Your task to perform on an android device: Open notification settings Image 0: 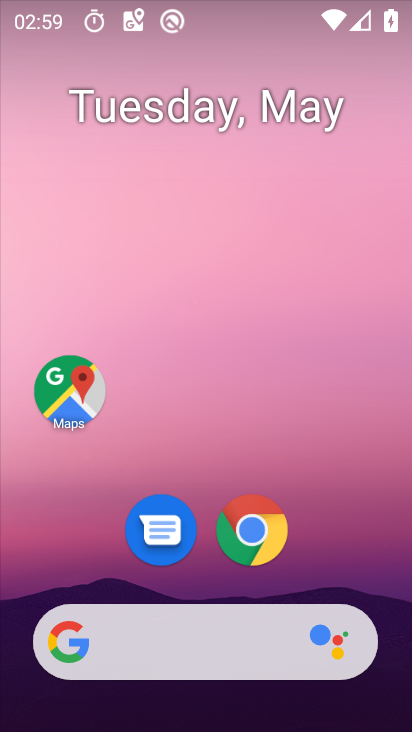
Step 0: press home button
Your task to perform on an android device: Open notification settings Image 1: 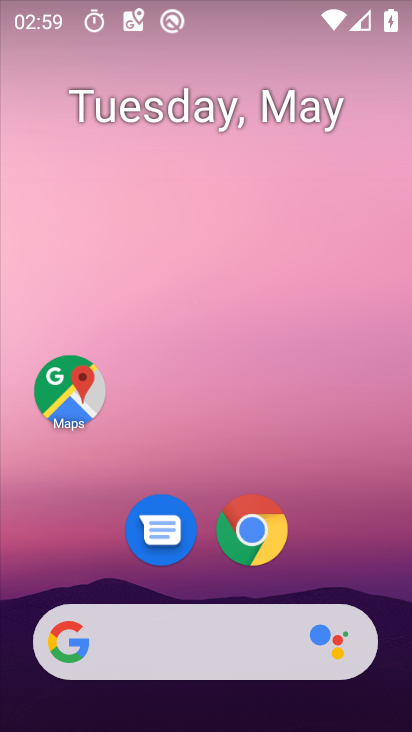
Step 1: drag from (5, 678) to (398, 46)
Your task to perform on an android device: Open notification settings Image 2: 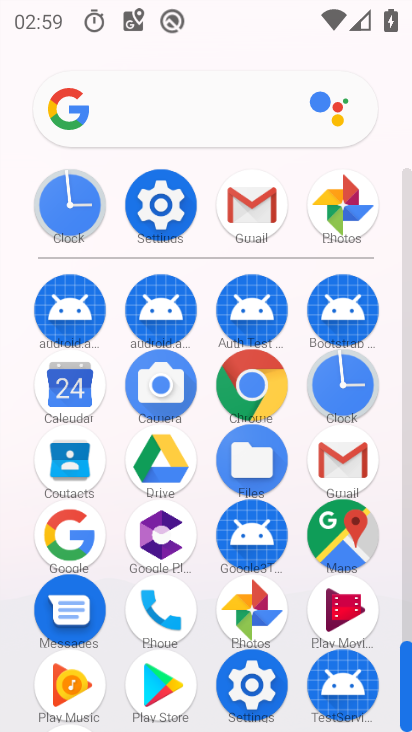
Step 2: click (161, 211)
Your task to perform on an android device: Open notification settings Image 3: 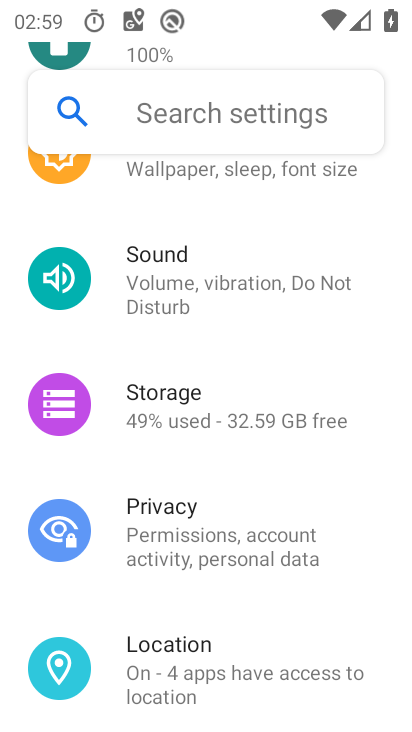
Step 3: drag from (179, 199) to (185, 610)
Your task to perform on an android device: Open notification settings Image 4: 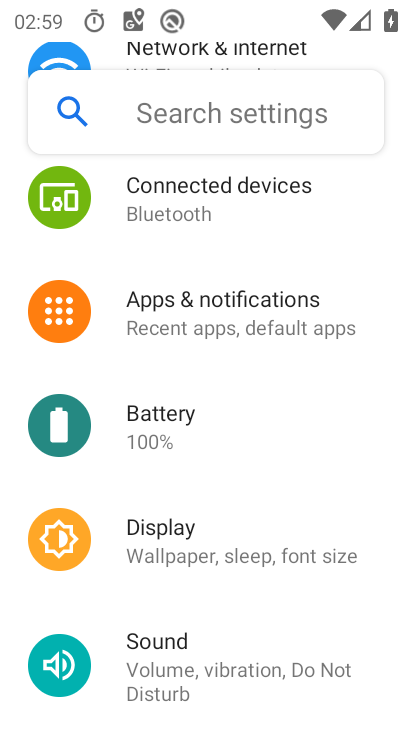
Step 4: drag from (217, 206) to (218, 537)
Your task to perform on an android device: Open notification settings Image 5: 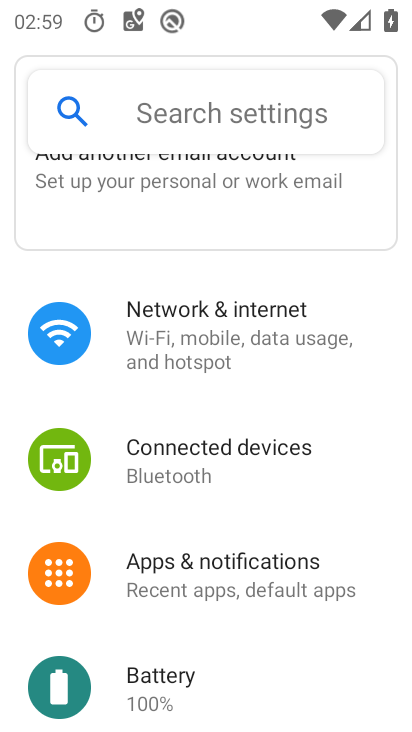
Step 5: click (183, 573)
Your task to perform on an android device: Open notification settings Image 6: 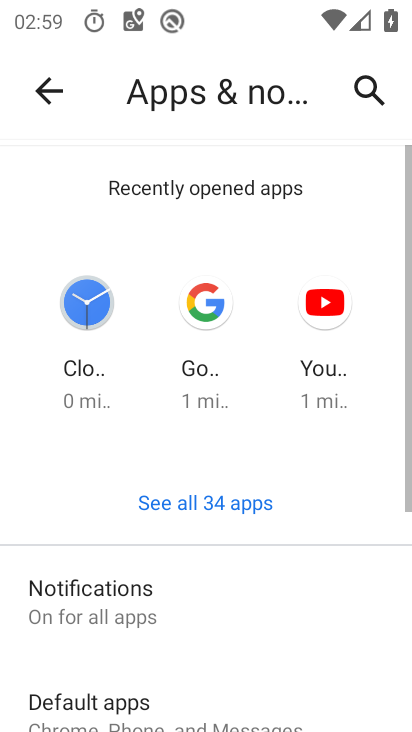
Step 6: task complete